Your task to perform on an android device: Show me popular videos on Youtube Image 0: 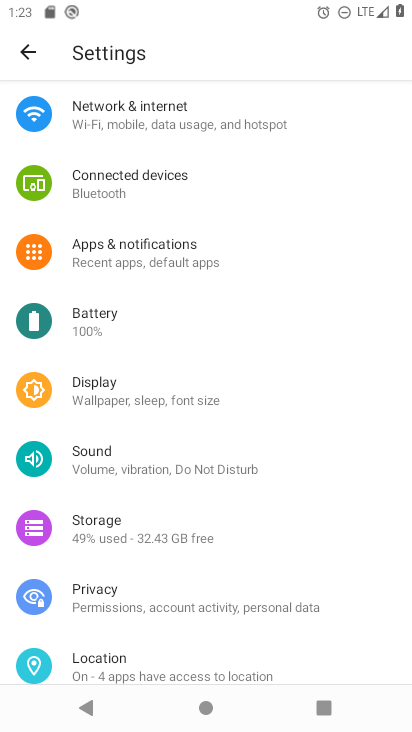
Step 0: press home button
Your task to perform on an android device: Show me popular videos on Youtube Image 1: 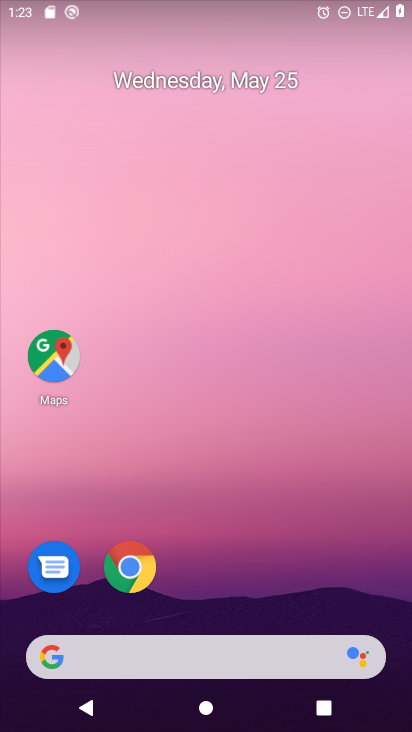
Step 1: drag from (394, 702) to (355, 239)
Your task to perform on an android device: Show me popular videos on Youtube Image 2: 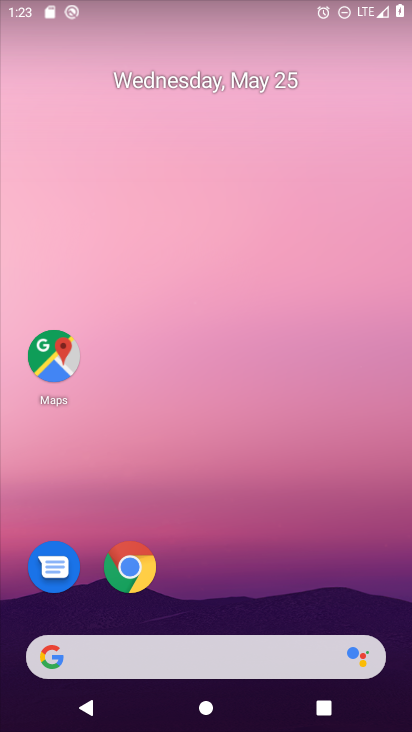
Step 2: drag from (401, 708) to (389, 326)
Your task to perform on an android device: Show me popular videos on Youtube Image 3: 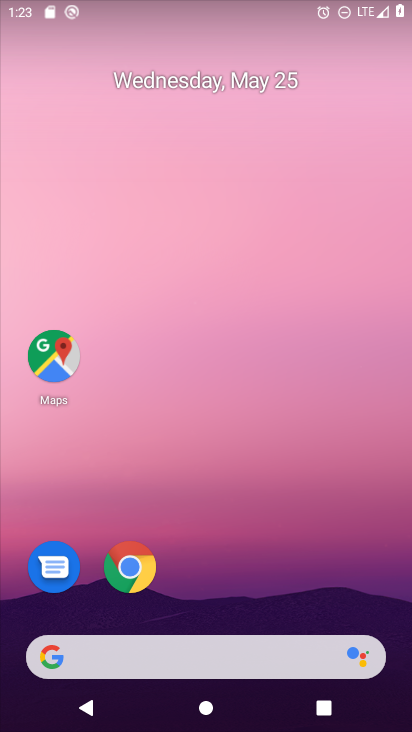
Step 3: drag from (401, 712) to (347, 203)
Your task to perform on an android device: Show me popular videos on Youtube Image 4: 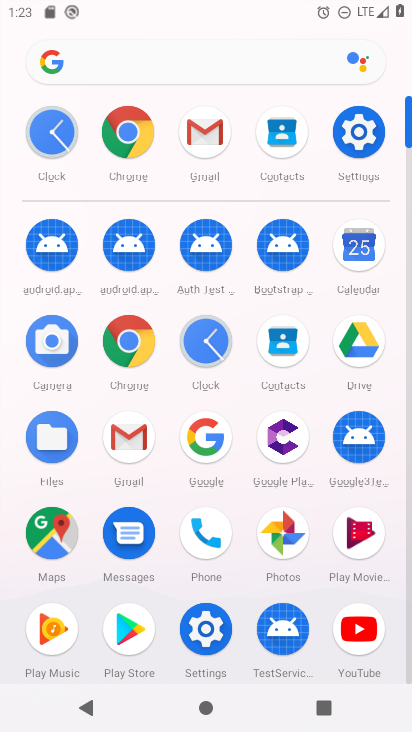
Step 4: click (355, 632)
Your task to perform on an android device: Show me popular videos on Youtube Image 5: 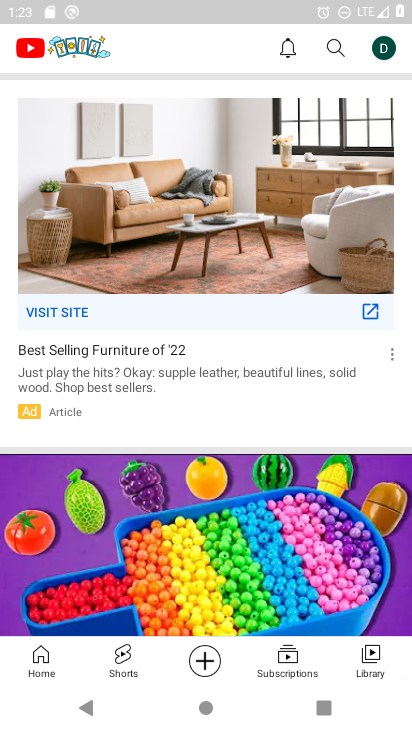
Step 5: click (383, 46)
Your task to perform on an android device: Show me popular videos on Youtube Image 6: 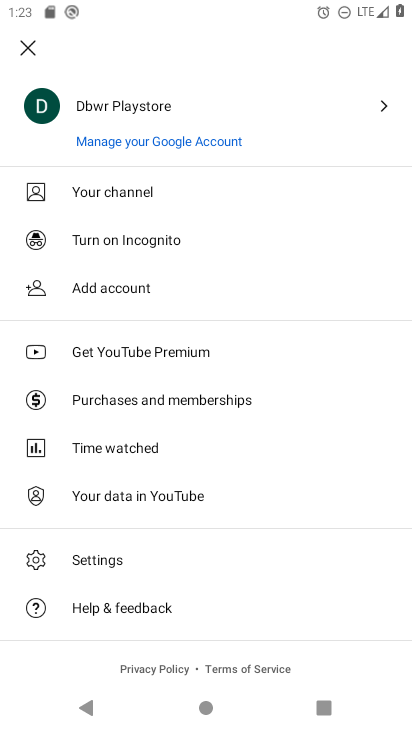
Step 6: click (23, 48)
Your task to perform on an android device: Show me popular videos on Youtube Image 7: 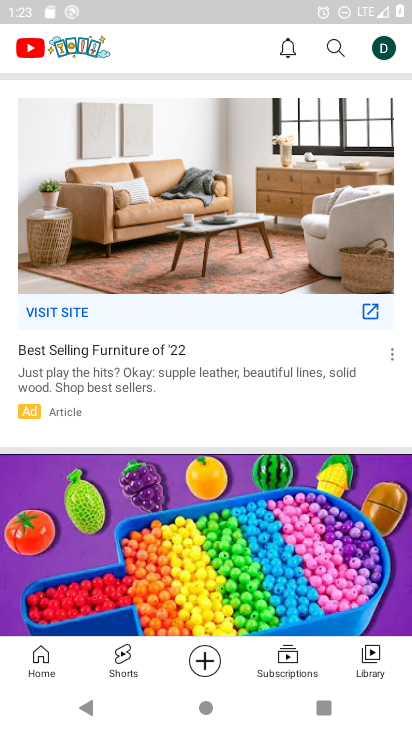
Step 7: click (334, 44)
Your task to perform on an android device: Show me popular videos on Youtube Image 8: 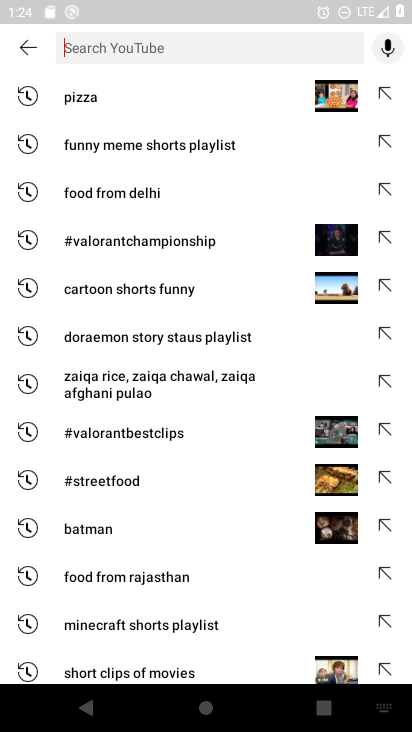
Step 8: type "popular videos on Youtube"
Your task to perform on an android device: Show me popular videos on Youtube Image 9: 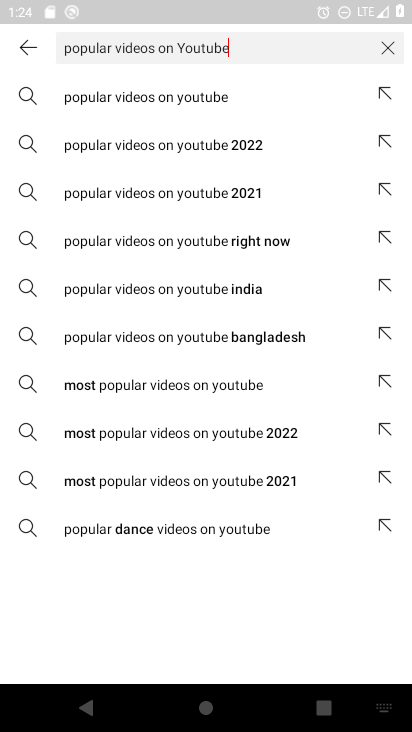
Step 9: click (152, 93)
Your task to perform on an android device: Show me popular videos on Youtube Image 10: 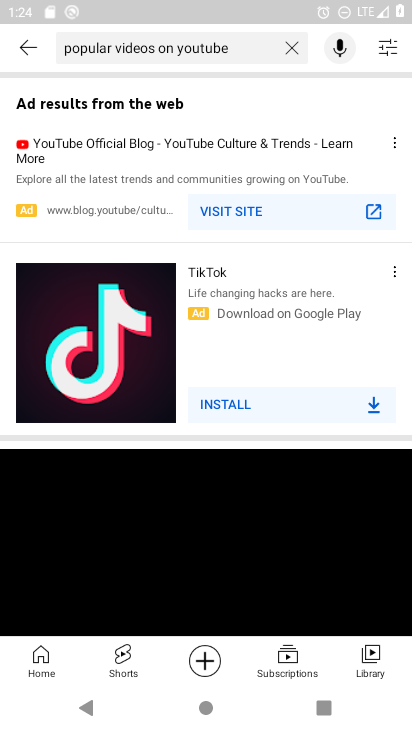
Step 10: task complete